Your task to perform on an android device: Search for flights from Buenos aires to Seoul Image 0: 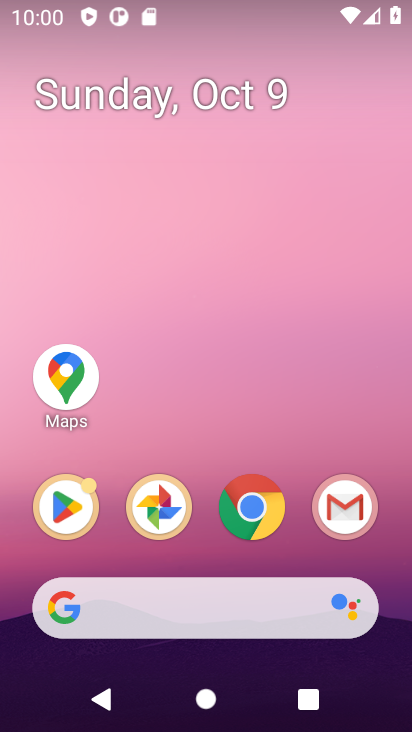
Step 0: drag from (305, 563) to (313, 59)
Your task to perform on an android device: Search for flights from Buenos aires to Seoul Image 1: 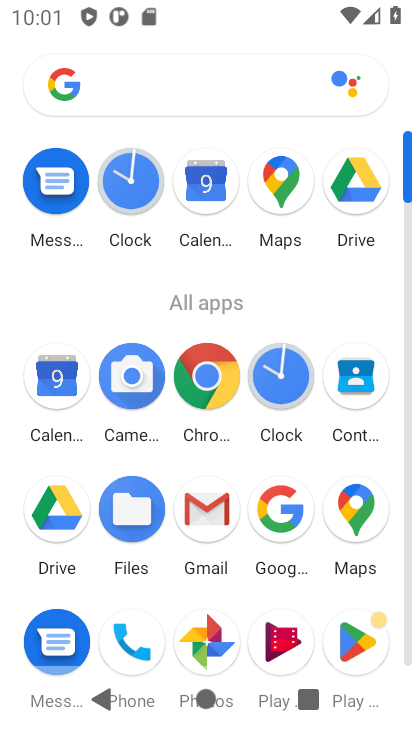
Step 1: click (201, 377)
Your task to perform on an android device: Search for flights from Buenos aires to Seoul Image 2: 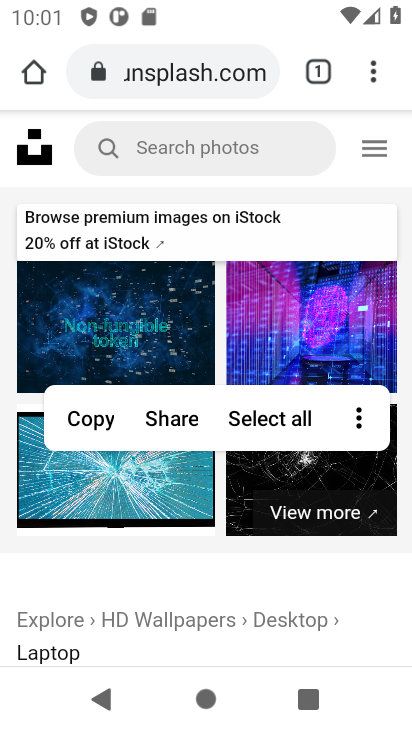
Step 2: click (220, 79)
Your task to perform on an android device: Search for flights from Buenos aires to Seoul Image 3: 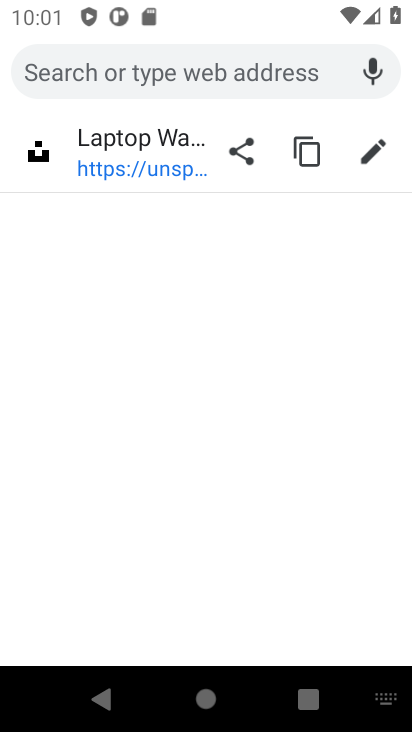
Step 3: type "flights from Buenos aires to Seoul"
Your task to perform on an android device: Search for flights from Buenos aires to Seoul Image 4: 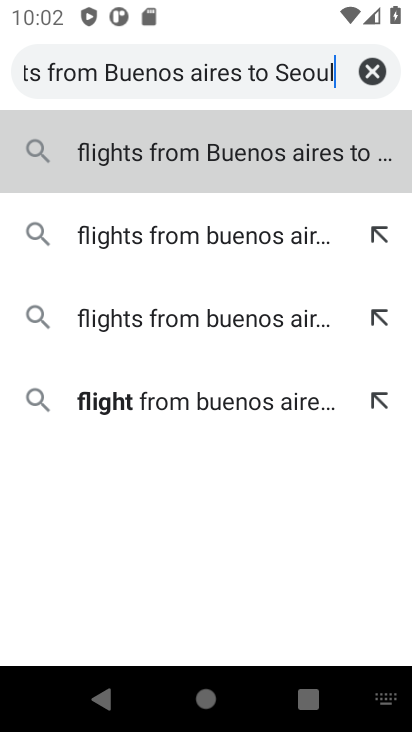
Step 4: press enter
Your task to perform on an android device: Search for flights from Buenos aires to Seoul Image 5: 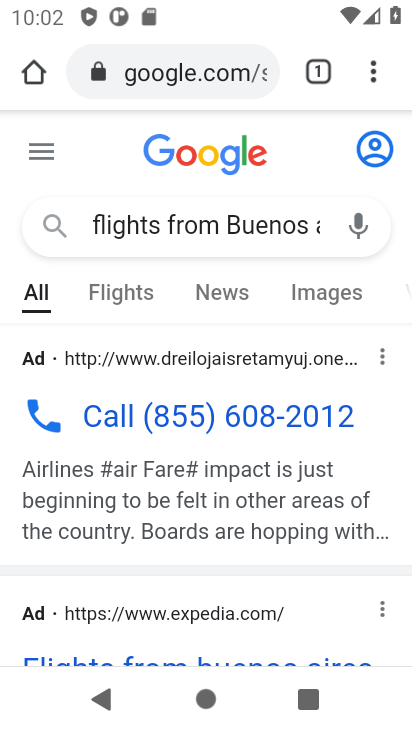
Step 5: task complete